Your task to perform on an android device: Open Google Image 0: 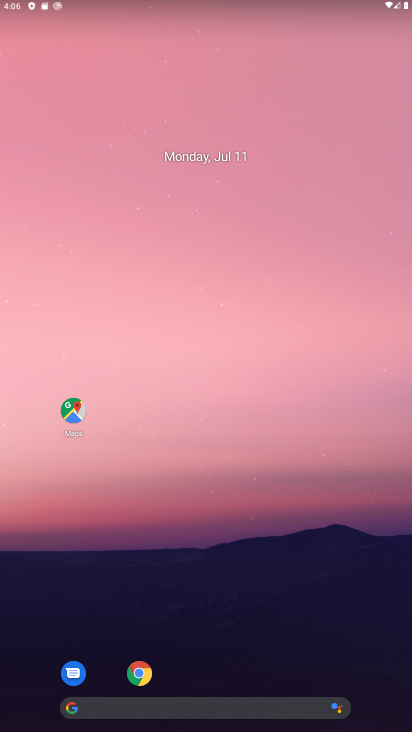
Step 0: drag from (190, 680) to (247, 53)
Your task to perform on an android device: Open Google Image 1: 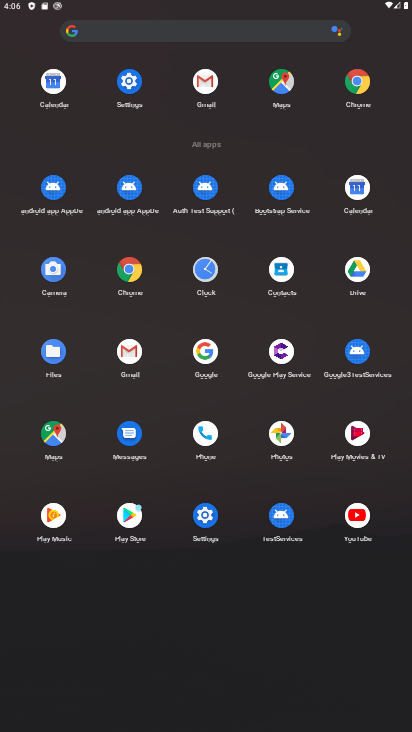
Step 1: click (206, 350)
Your task to perform on an android device: Open Google Image 2: 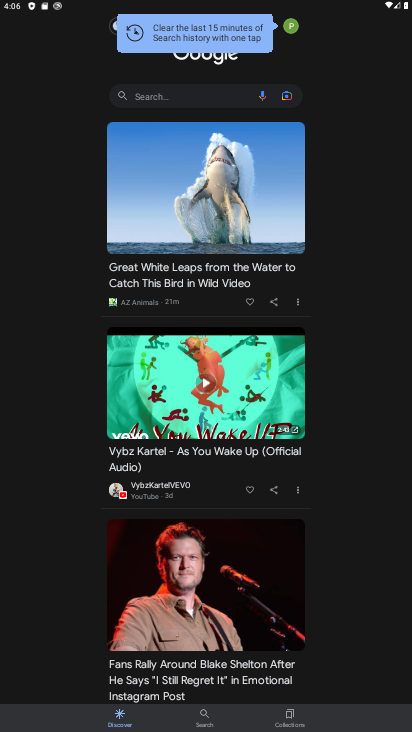
Step 2: task complete